Your task to perform on an android device: When is my next appointment? Image 0: 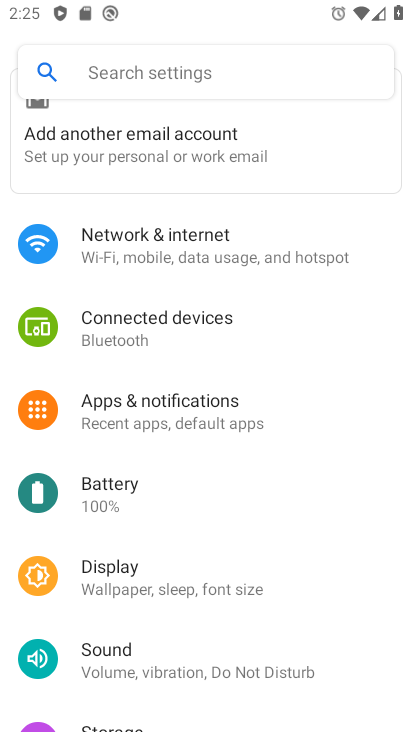
Step 0: press home button
Your task to perform on an android device: When is my next appointment? Image 1: 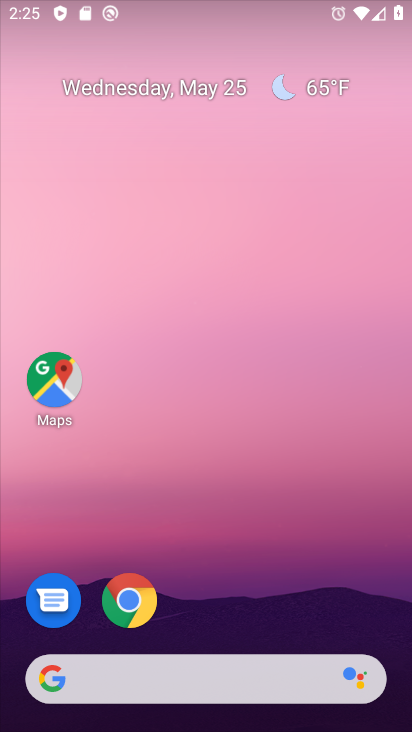
Step 1: drag from (237, 518) to (275, 77)
Your task to perform on an android device: When is my next appointment? Image 2: 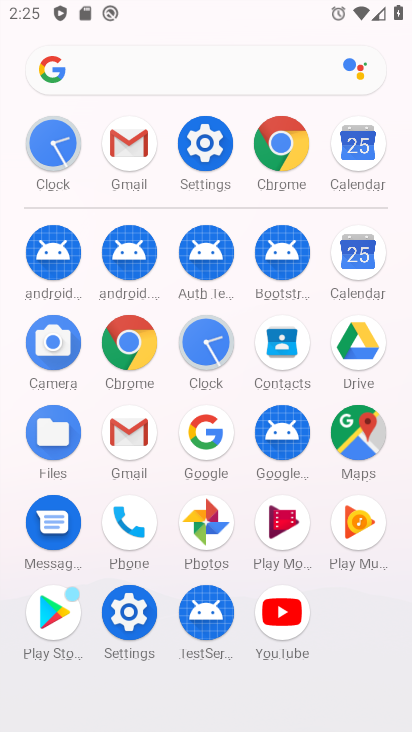
Step 2: click (343, 263)
Your task to perform on an android device: When is my next appointment? Image 3: 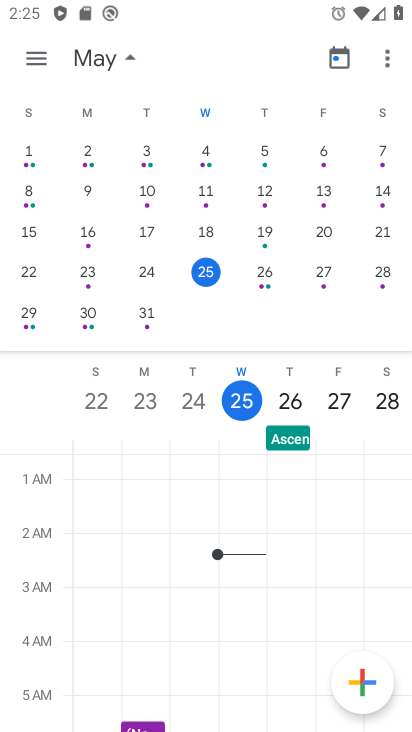
Step 3: task complete